Your task to perform on an android device: turn on translation in the chrome app Image 0: 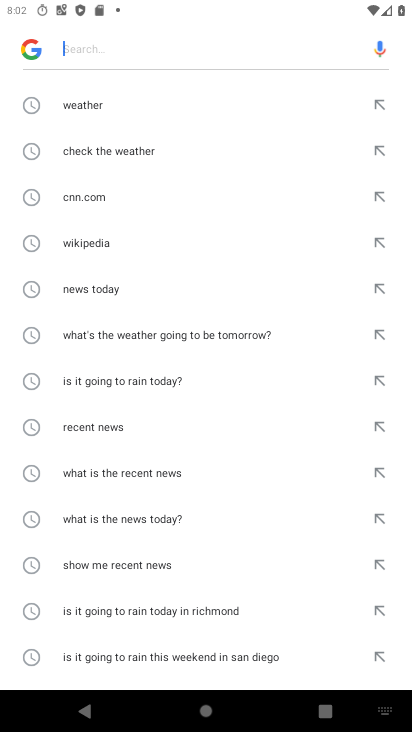
Step 0: press home button
Your task to perform on an android device: turn on translation in the chrome app Image 1: 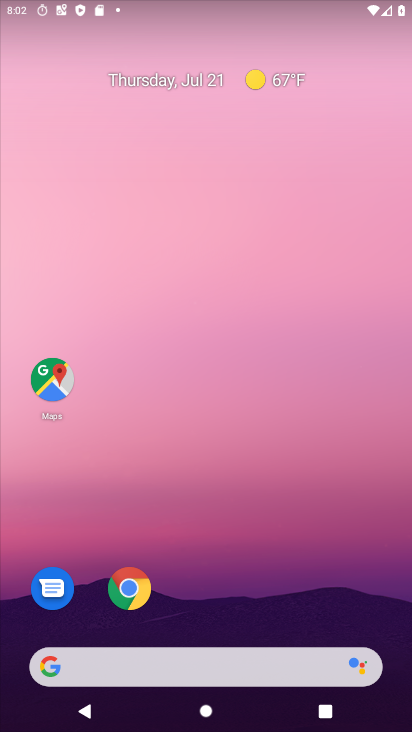
Step 1: click (120, 605)
Your task to perform on an android device: turn on translation in the chrome app Image 2: 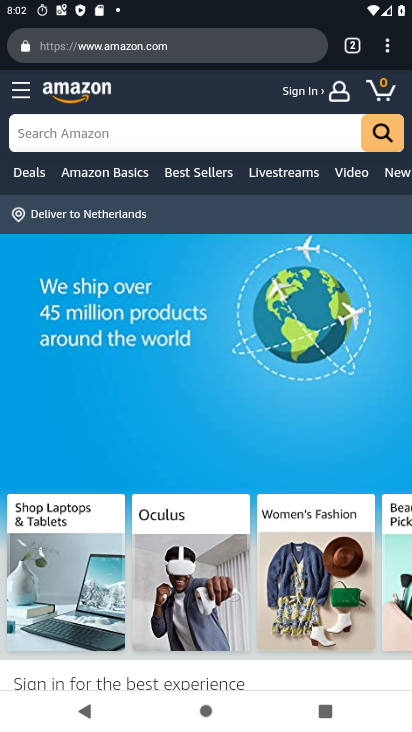
Step 2: click (392, 51)
Your task to perform on an android device: turn on translation in the chrome app Image 3: 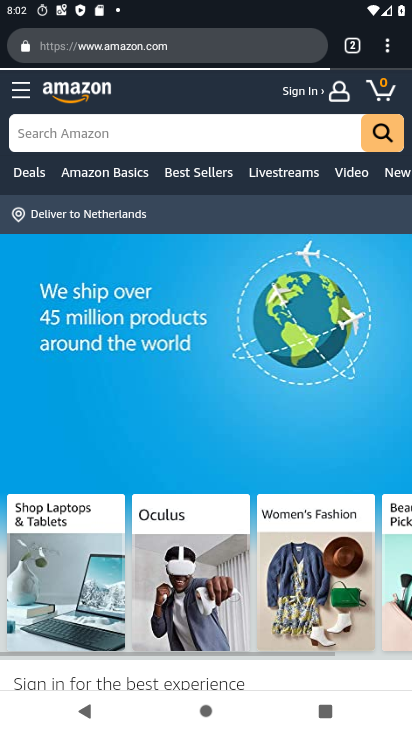
Step 3: click (387, 51)
Your task to perform on an android device: turn on translation in the chrome app Image 4: 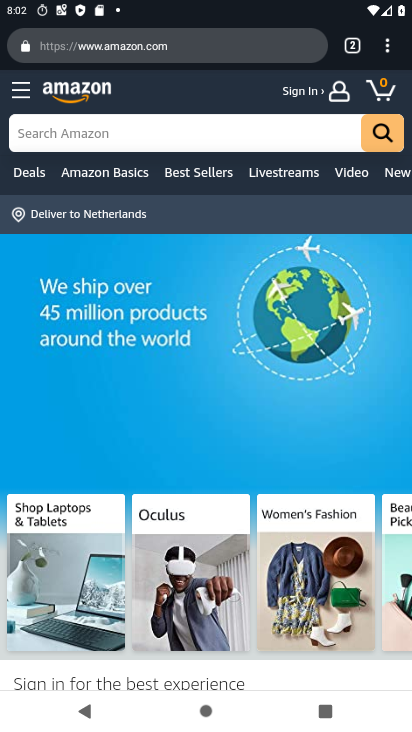
Step 4: click (381, 46)
Your task to perform on an android device: turn on translation in the chrome app Image 5: 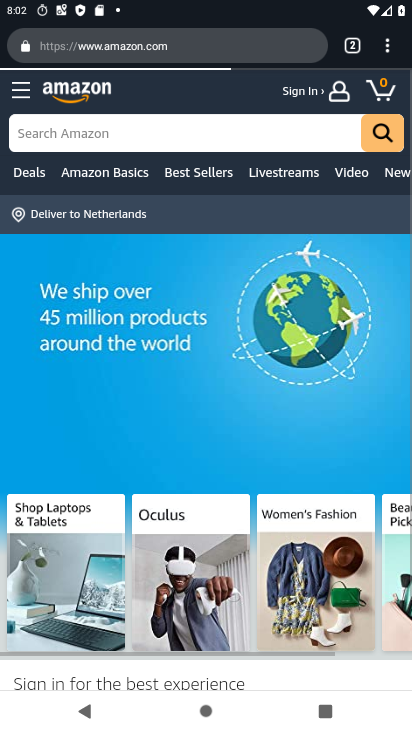
Step 5: click (392, 54)
Your task to perform on an android device: turn on translation in the chrome app Image 6: 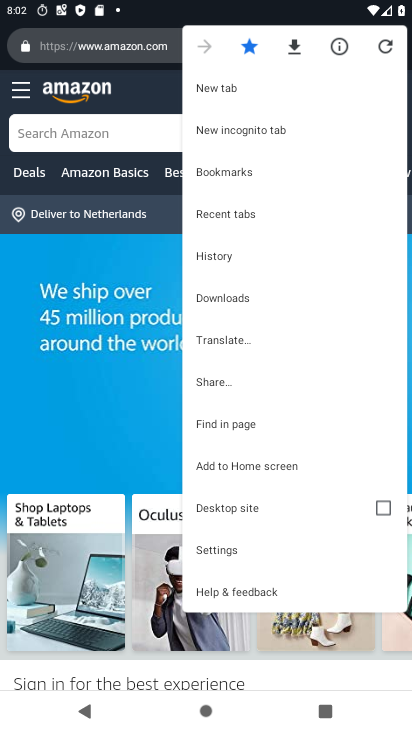
Step 6: click (214, 554)
Your task to perform on an android device: turn on translation in the chrome app Image 7: 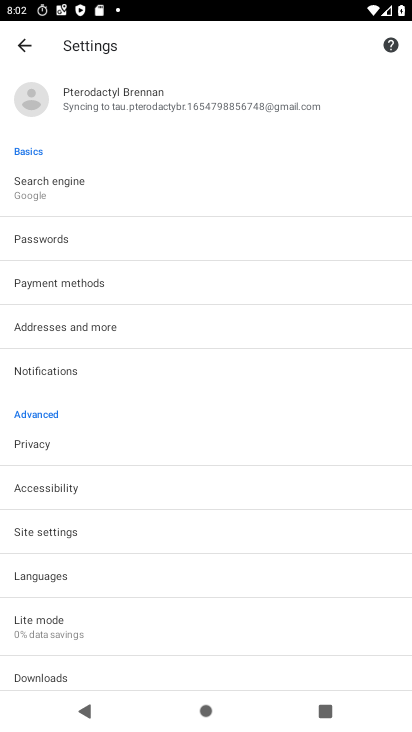
Step 7: click (41, 589)
Your task to perform on an android device: turn on translation in the chrome app Image 8: 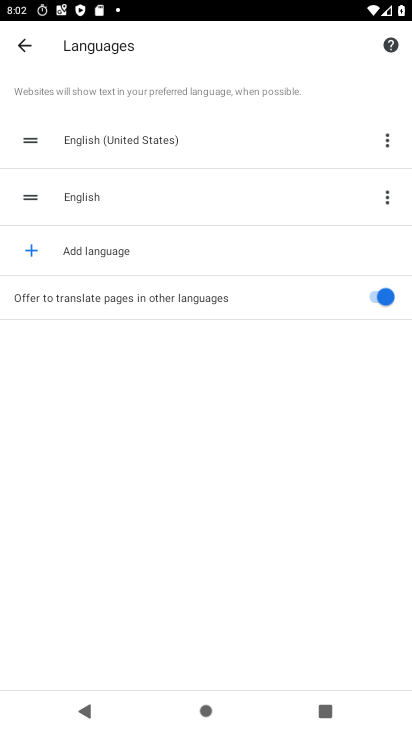
Step 8: task complete